Your task to perform on an android device: check android version Image 0: 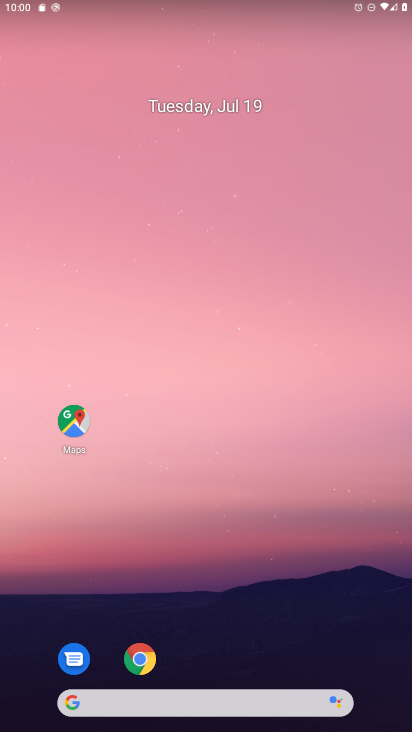
Step 0: drag from (281, 683) to (286, 323)
Your task to perform on an android device: check android version Image 1: 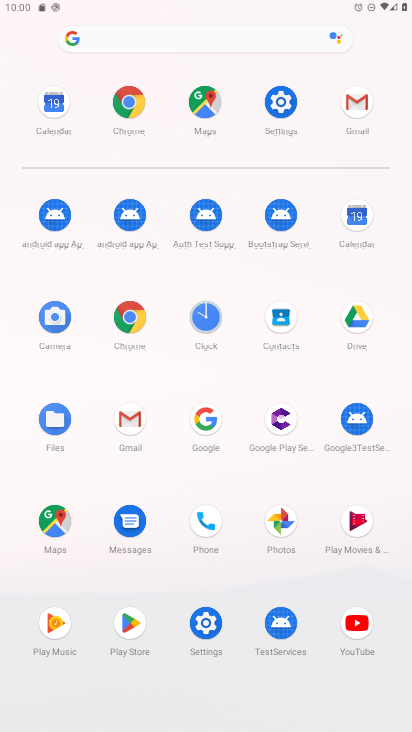
Step 1: click (275, 88)
Your task to perform on an android device: check android version Image 2: 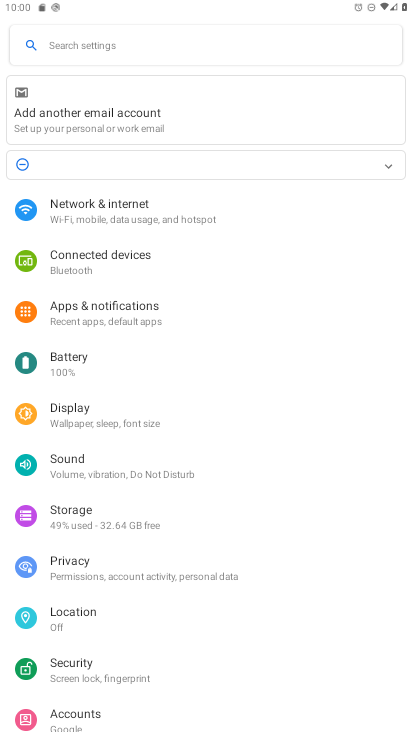
Step 2: drag from (136, 605) to (171, 234)
Your task to perform on an android device: check android version Image 3: 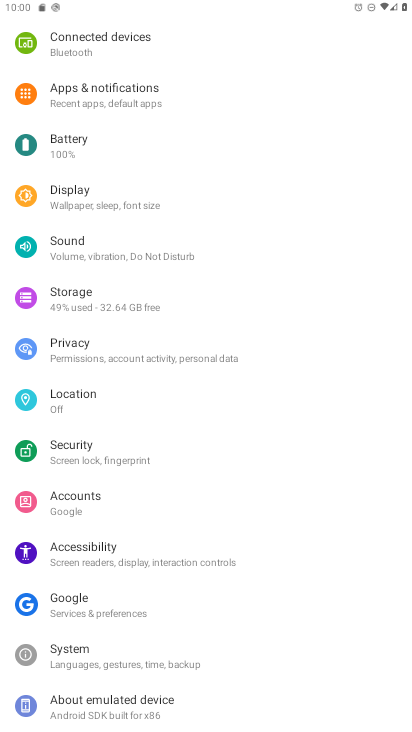
Step 3: click (142, 690)
Your task to perform on an android device: check android version Image 4: 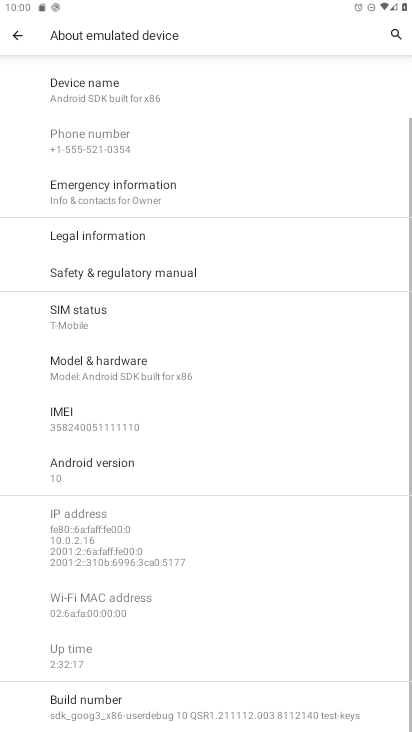
Step 4: click (117, 465)
Your task to perform on an android device: check android version Image 5: 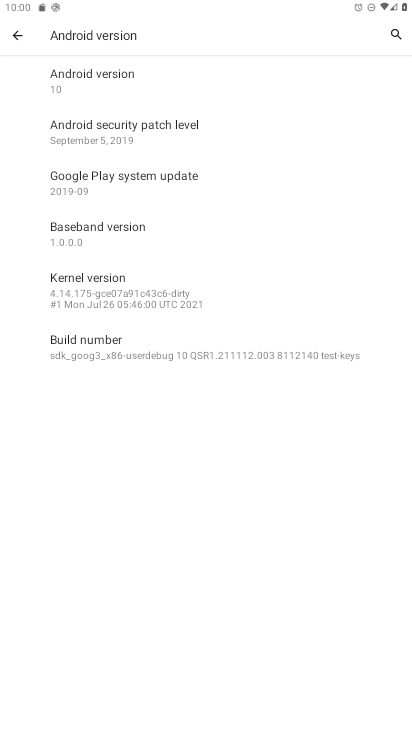
Step 5: click (144, 73)
Your task to perform on an android device: check android version Image 6: 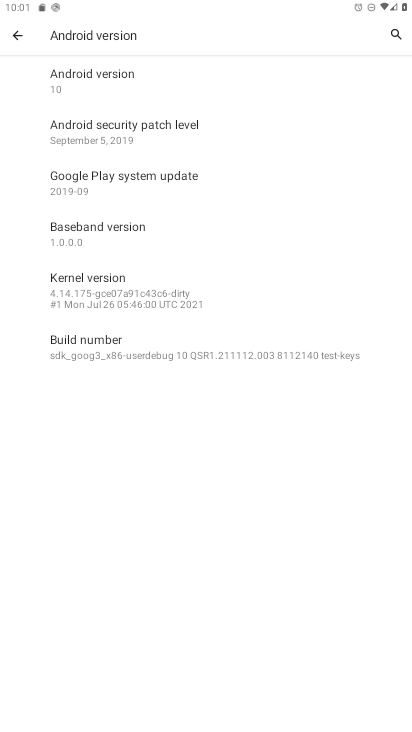
Step 6: task complete